Your task to perform on an android device: Do I have any events tomorrow? Image 0: 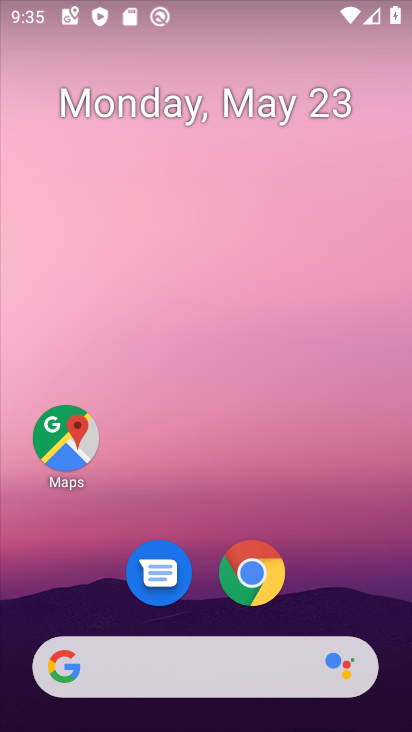
Step 0: drag from (367, 580) to (354, 252)
Your task to perform on an android device: Do I have any events tomorrow? Image 1: 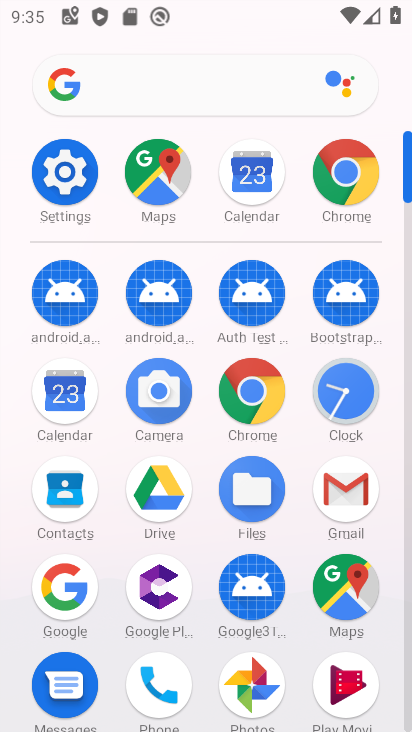
Step 1: click (53, 416)
Your task to perform on an android device: Do I have any events tomorrow? Image 2: 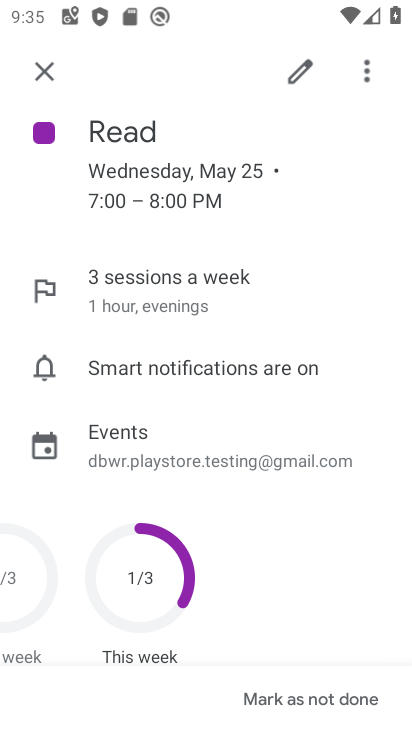
Step 2: task complete